Your task to perform on an android device: Search for "usb-a" on bestbuy, select the first entry, and add it to the cart. Image 0: 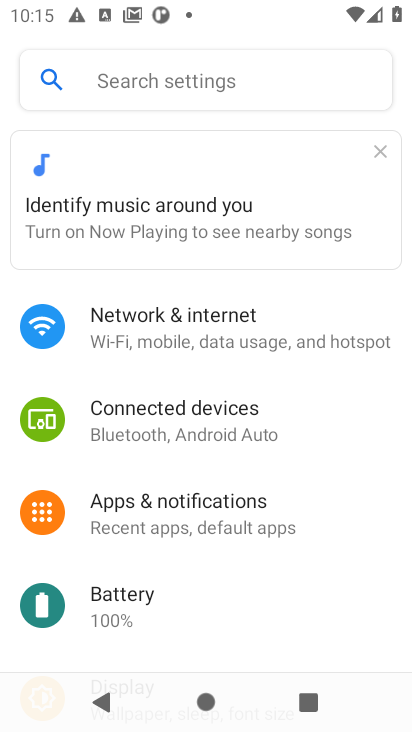
Step 0: press home button
Your task to perform on an android device: Search for "usb-a" on bestbuy, select the first entry, and add it to the cart. Image 1: 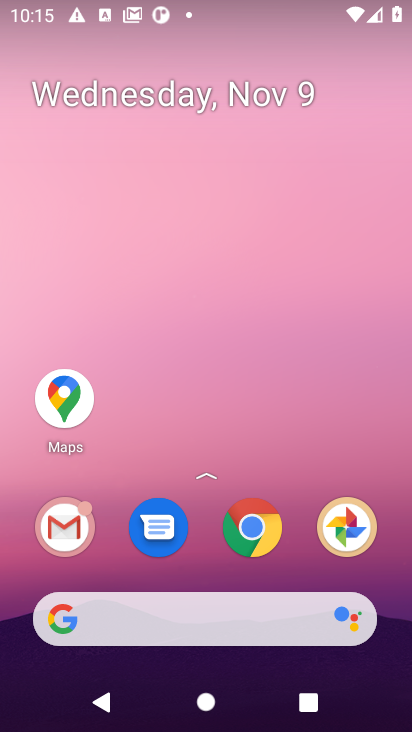
Step 1: click (252, 527)
Your task to perform on an android device: Search for "usb-a" on bestbuy, select the first entry, and add it to the cart. Image 2: 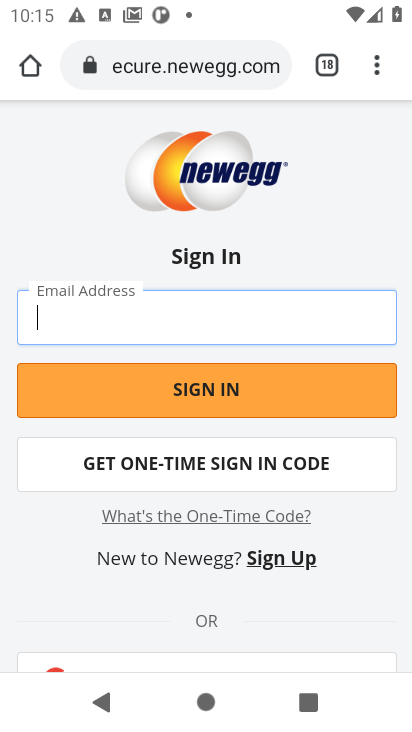
Step 2: click (144, 71)
Your task to perform on an android device: Search for "usb-a" on bestbuy, select the first entry, and add it to the cart. Image 3: 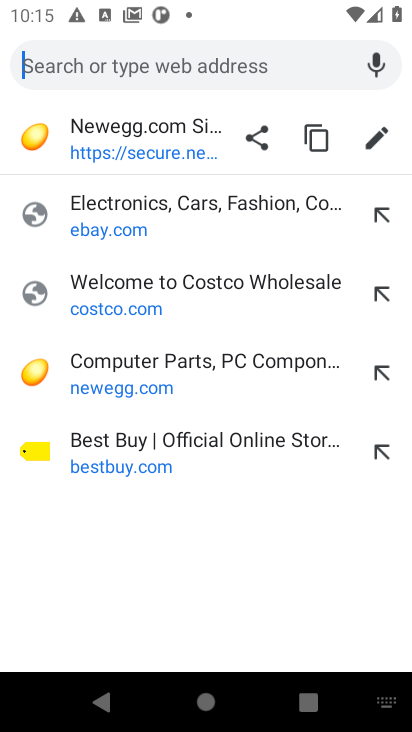
Step 3: click (122, 436)
Your task to perform on an android device: Search for "usb-a" on bestbuy, select the first entry, and add it to the cart. Image 4: 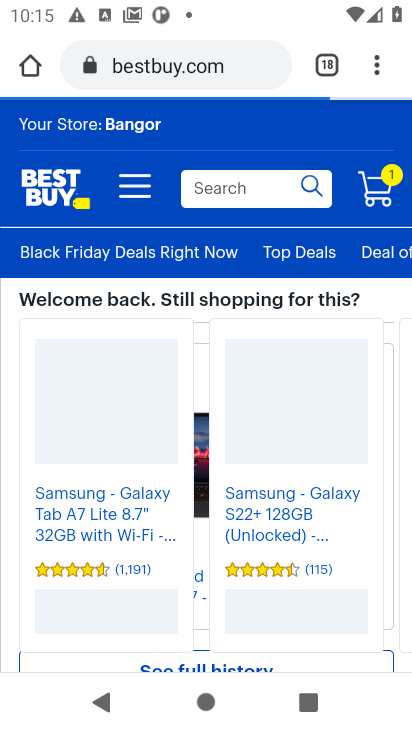
Step 4: click (235, 195)
Your task to perform on an android device: Search for "usb-a" on bestbuy, select the first entry, and add it to the cart. Image 5: 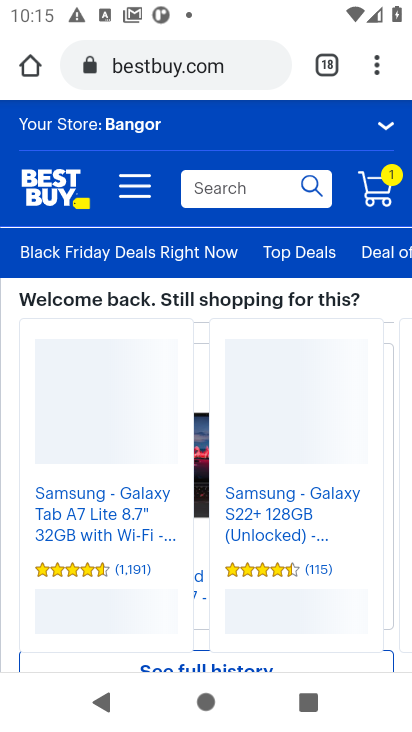
Step 5: type "usb-a"
Your task to perform on an android device: Search for "usb-a" on bestbuy, select the first entry, and add it to the cart. Image 6: 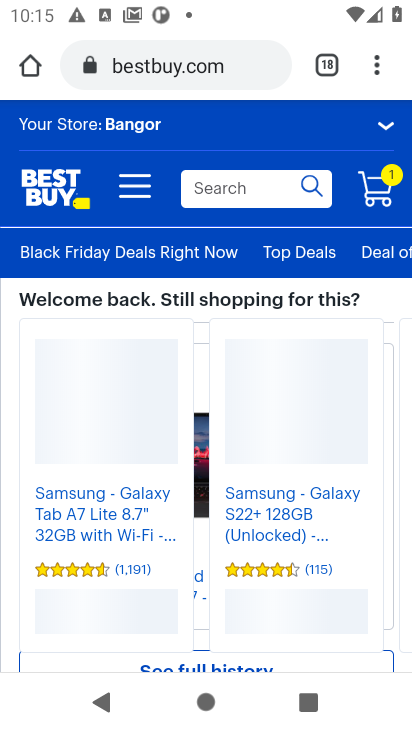
Step 6: click (203, 196)
Your task to perform on an android device: Search for "usb-a" on bestbuy, select the first entry, and add it to the cart. Image 7: 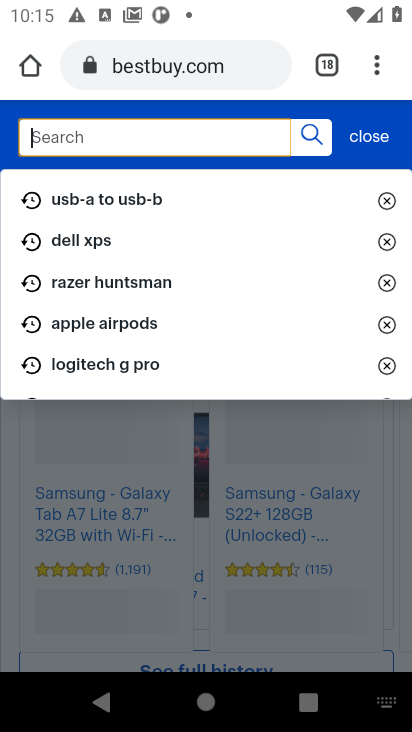
Step 7: type "usb-a"
Your task to perform on an android device: Search for "usb-a" on bestbuy, select the first entry, and add it to the cart. Image 8: 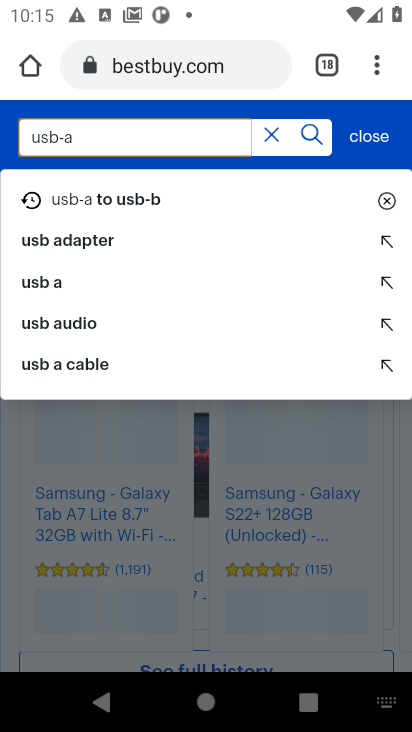
Step 8: click (49, 287)
Your task to perform on an android device: Search for "usb-a" on bestbuy, select the first entry, and add it to the cart. Image 9: 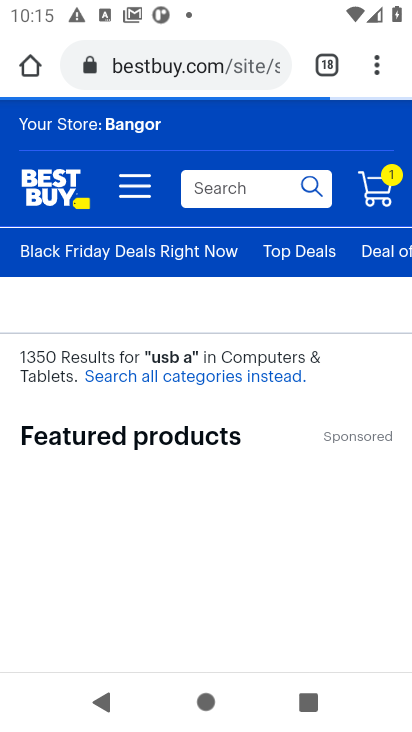
Step 9: task complete